Your task to perform on an android device: delete the emails in spam in the gmail app Image 0: 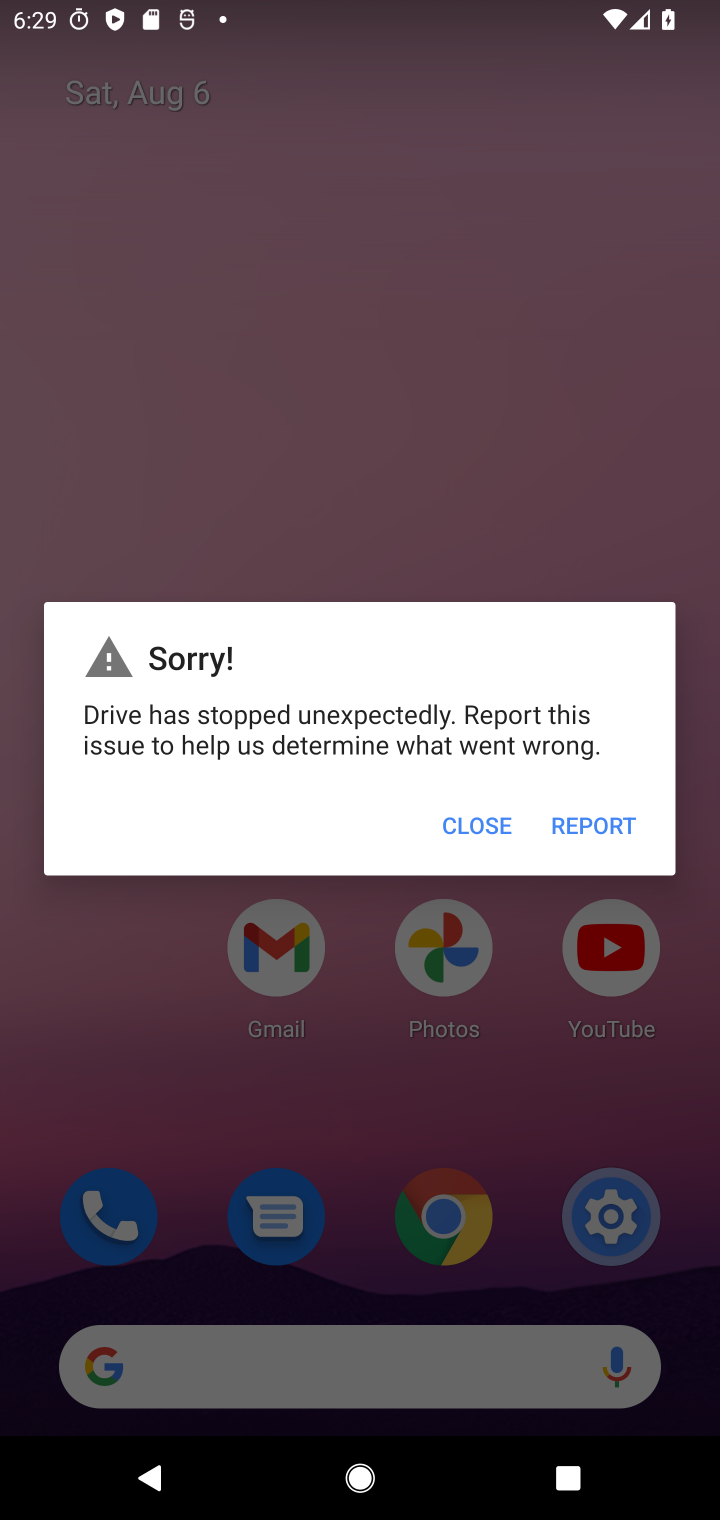
Step 0: press home button
Your task to perform on an android device: delete the emails in spam in the gmail app Image 1: 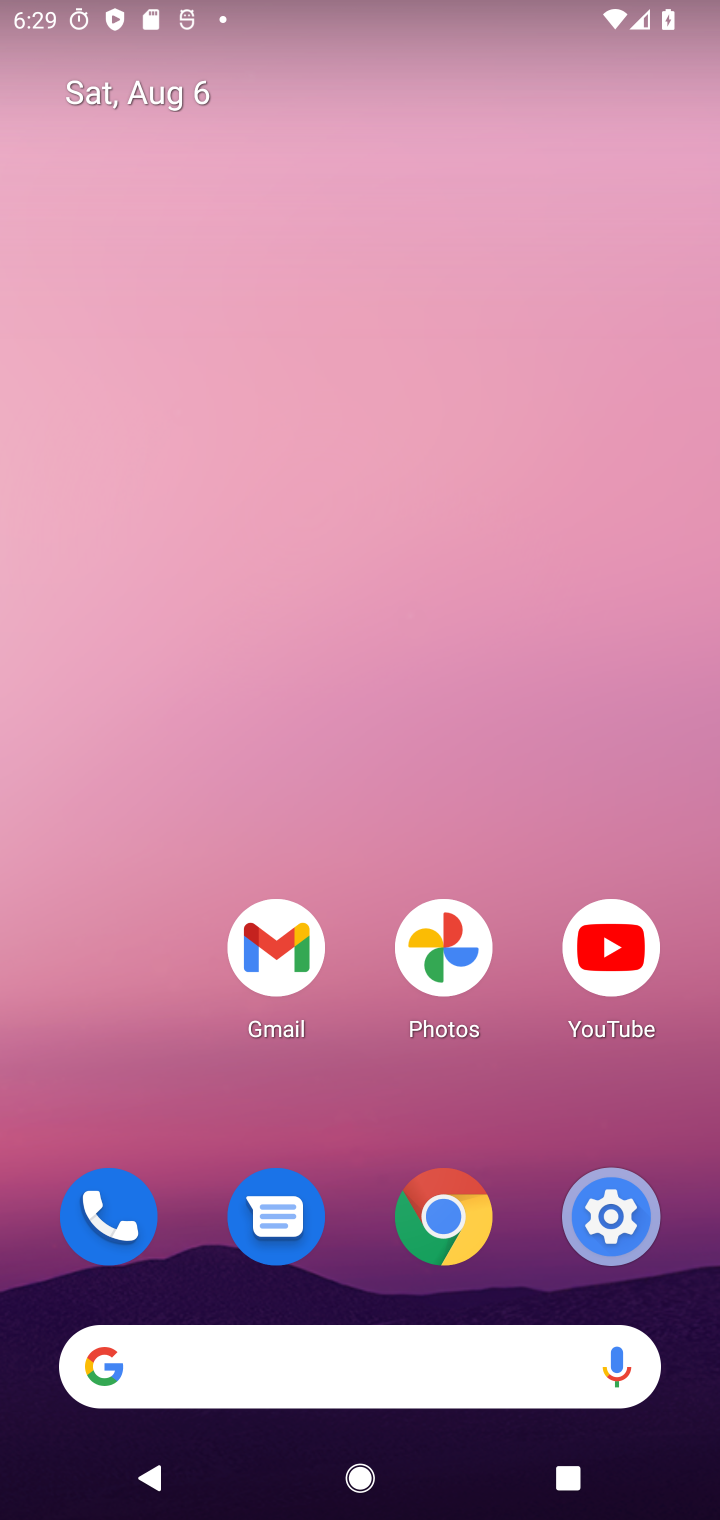
Step 1: drag from (350, 762) to (377, 190)
Your task to perform on an android device: delete the emails in spam in the gmail app Image 2: 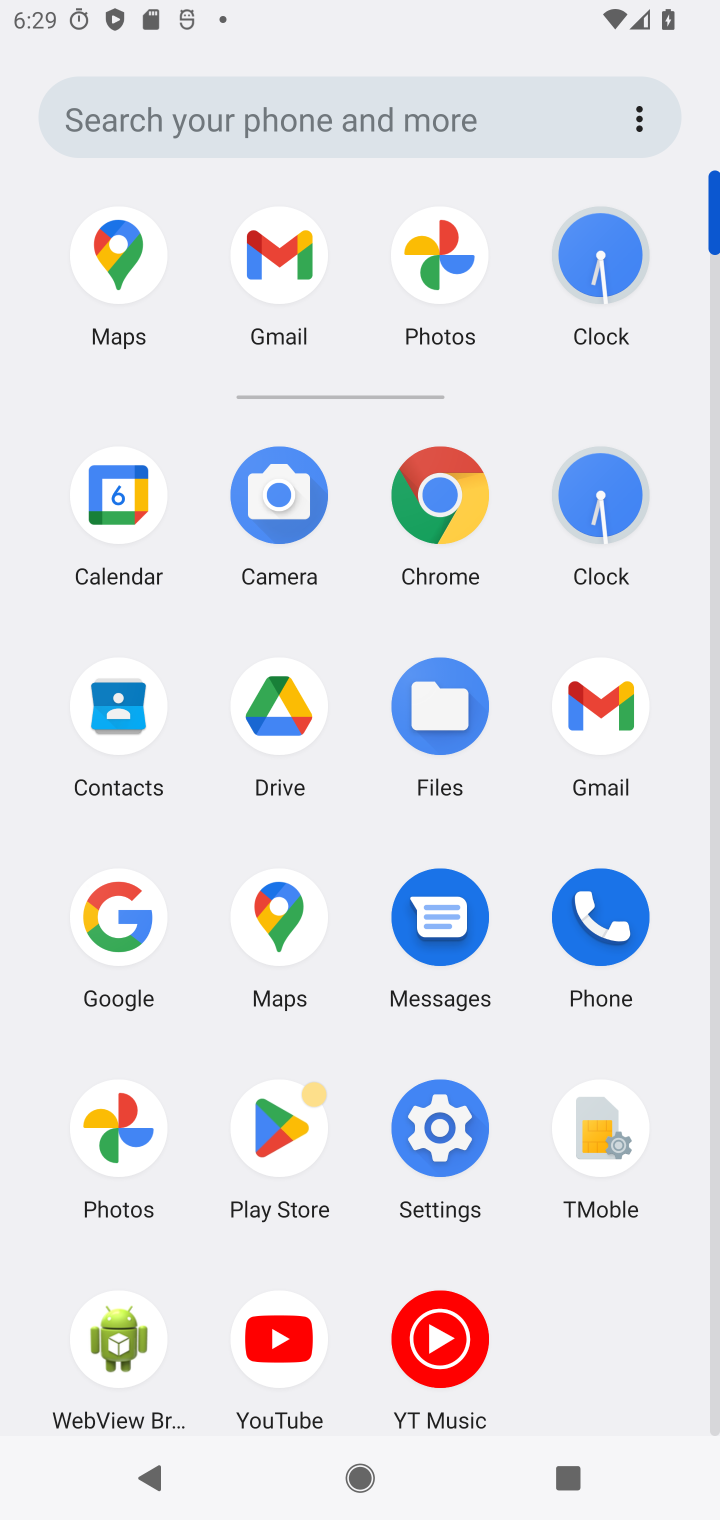
Step 2: click (615, 709)
Your task to perform on an android device: delete the emails in spam in the gmail app Image 3: 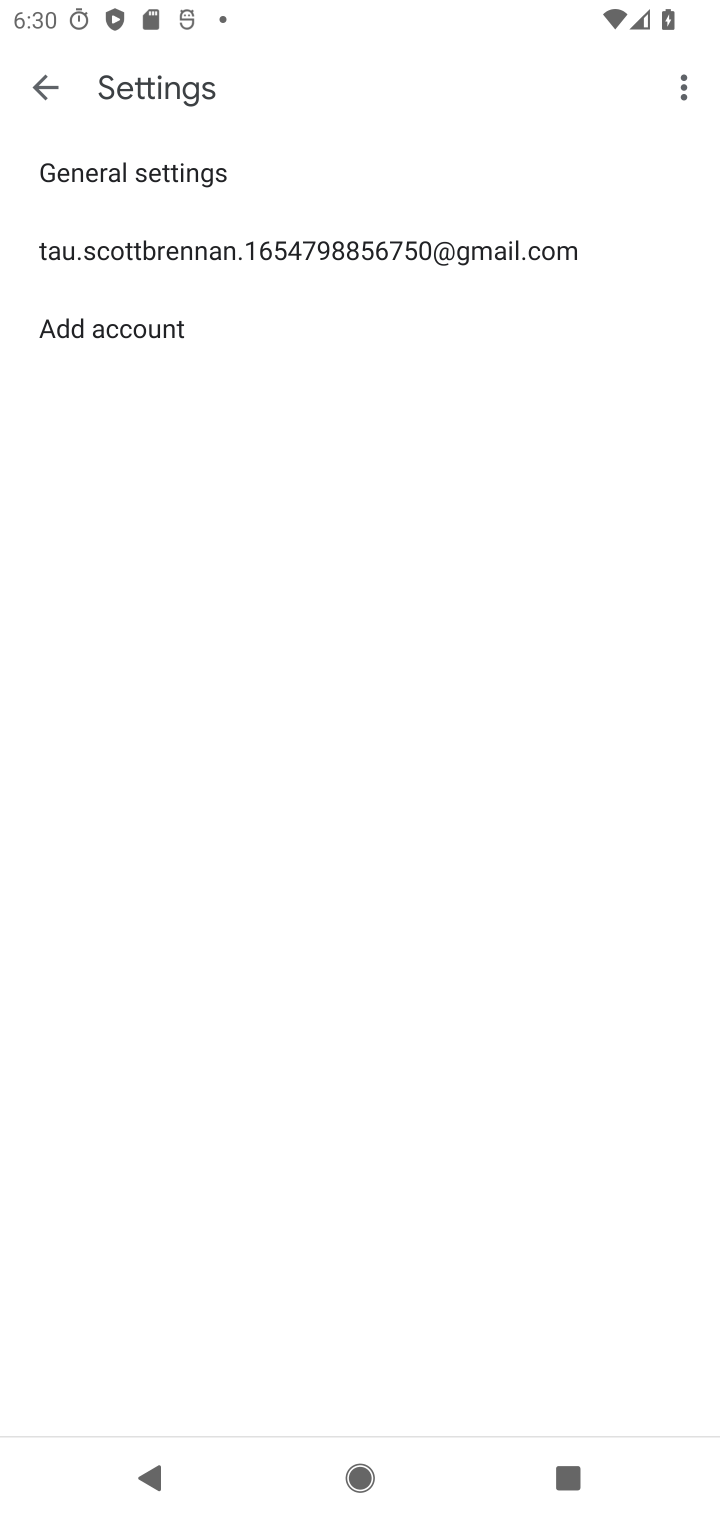
Step 3: click (44, 82)
Your task to perform on an android device: delete the emails in spam in the gmail app Image 4: 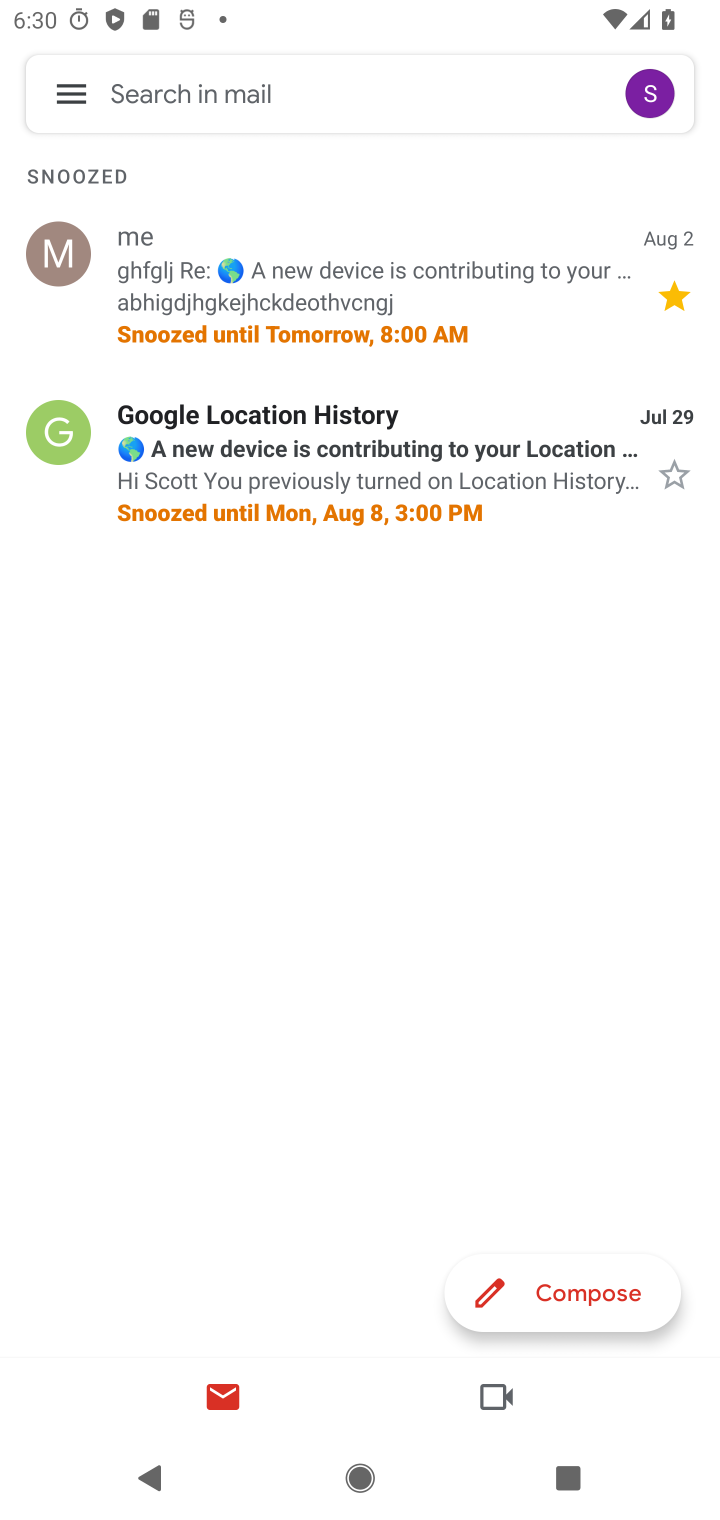
Step 4: click (44, 82)
Your task to perform on an android device: delete the emails in spam in the gmail app Image 5: 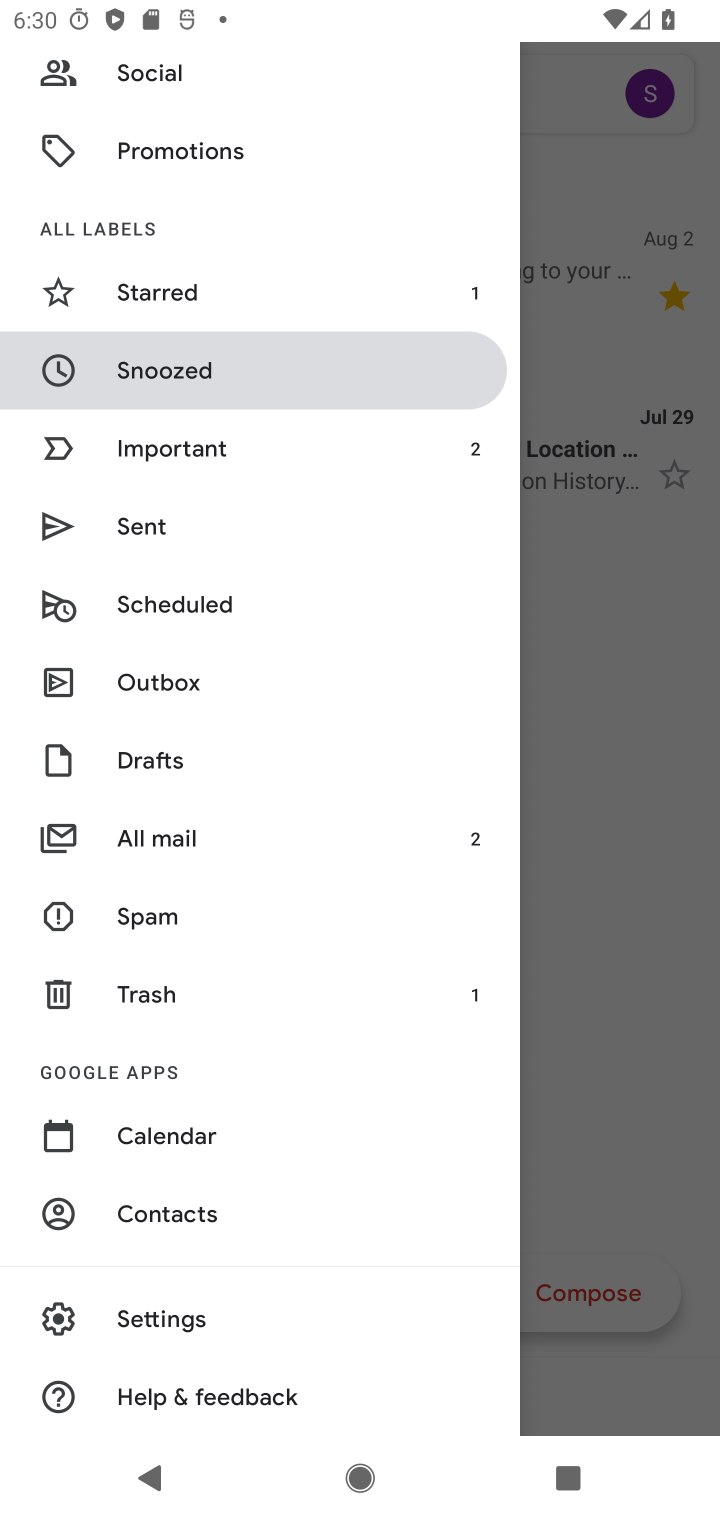
Step 5: click (161, 909)
Your task to perform on an android device: delete the emails in spam in the gmail app Image 6: 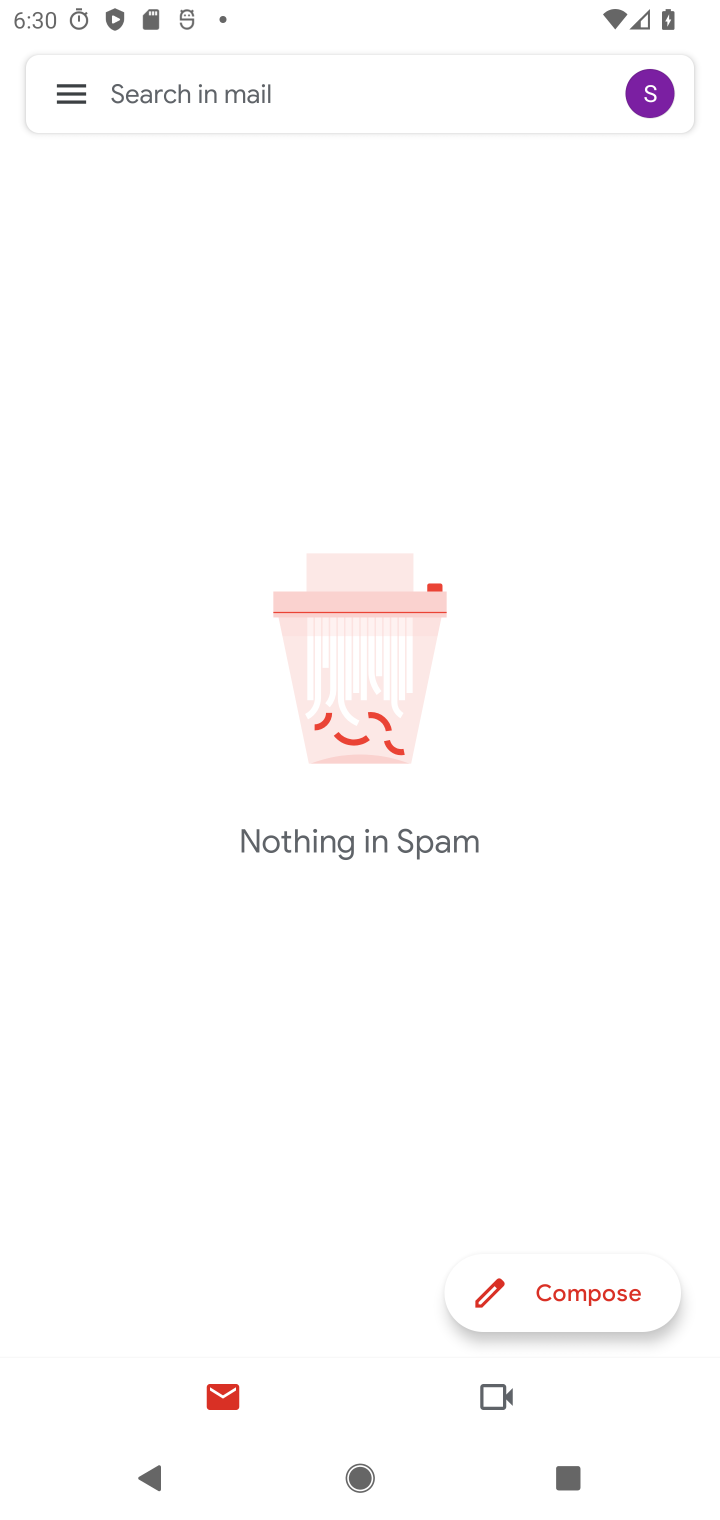
Step 6: task complete